Your task to perform on an android device: turn on wifi Image 0: 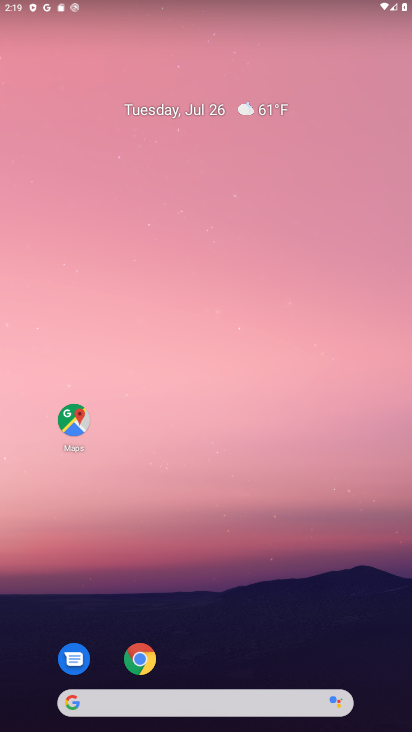
Step 0: drag from (353, 597) to (255, 140)
Your task to perform on an android device: turn on wifi Image 1: 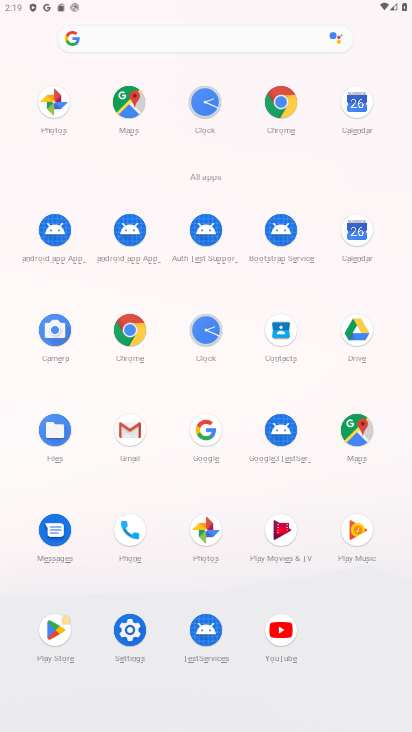
Step 1: click (115, 627)
Your task to perform on an android device: turn on wifi Image 2: 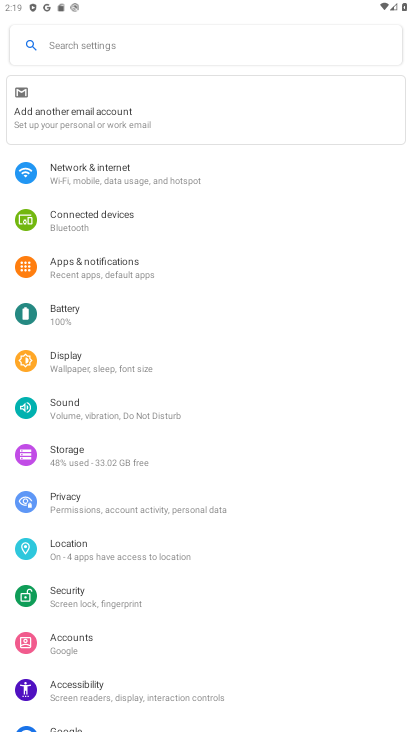
Step 2: click (99, 160)
Your task to perform on an android device: turn on wifi Image 3: 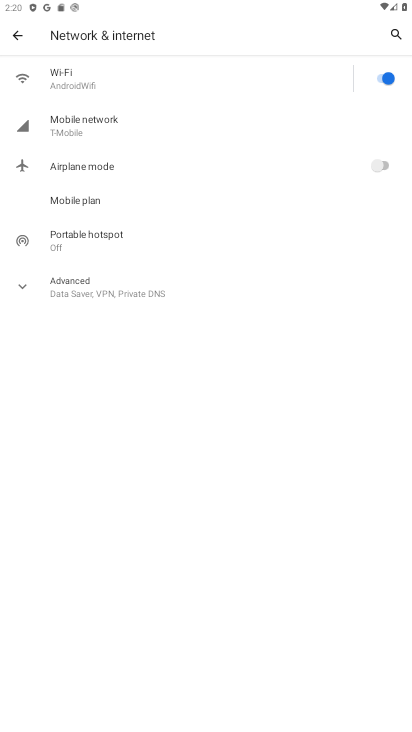
Step 3: task complete